Your task to perform on an android device: Search for flights from Sydney to Buenos aires Image 0: 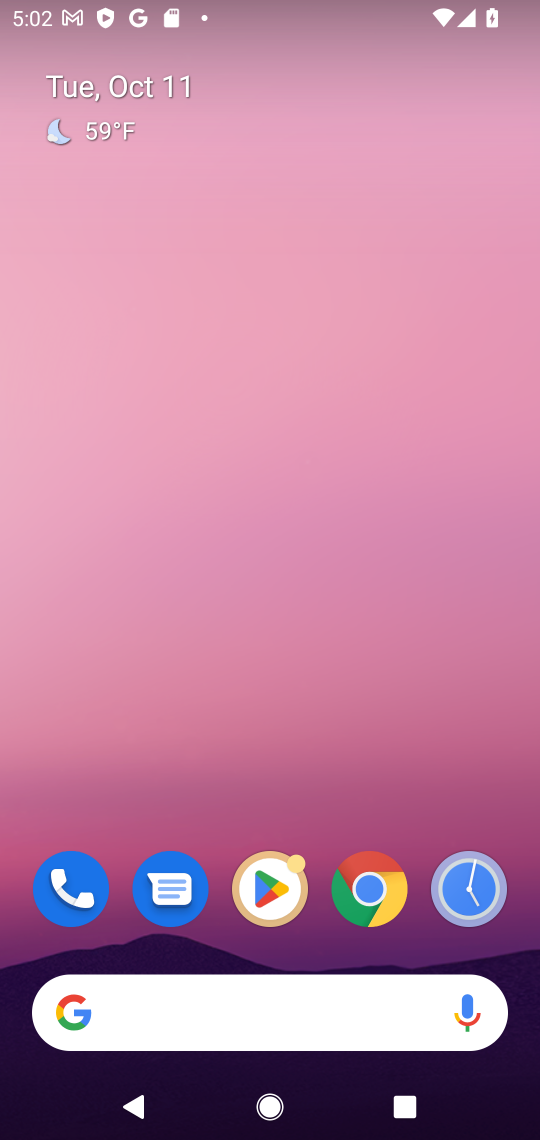
Step 0: drag from (296, 571) to (304, 408)
Your task to perform on an android device: Search for flights from Sydney to Buenos aires Image 1: 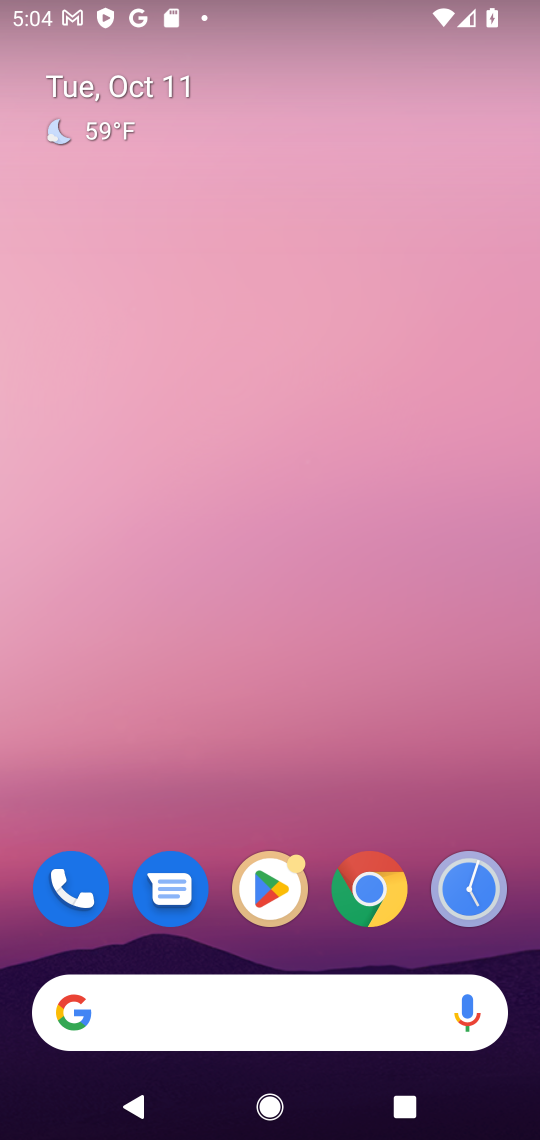
Step 1: click (276, 80)
Your task to perform on an android device: Search for flights from Sydney to Buenos aires Image 2: 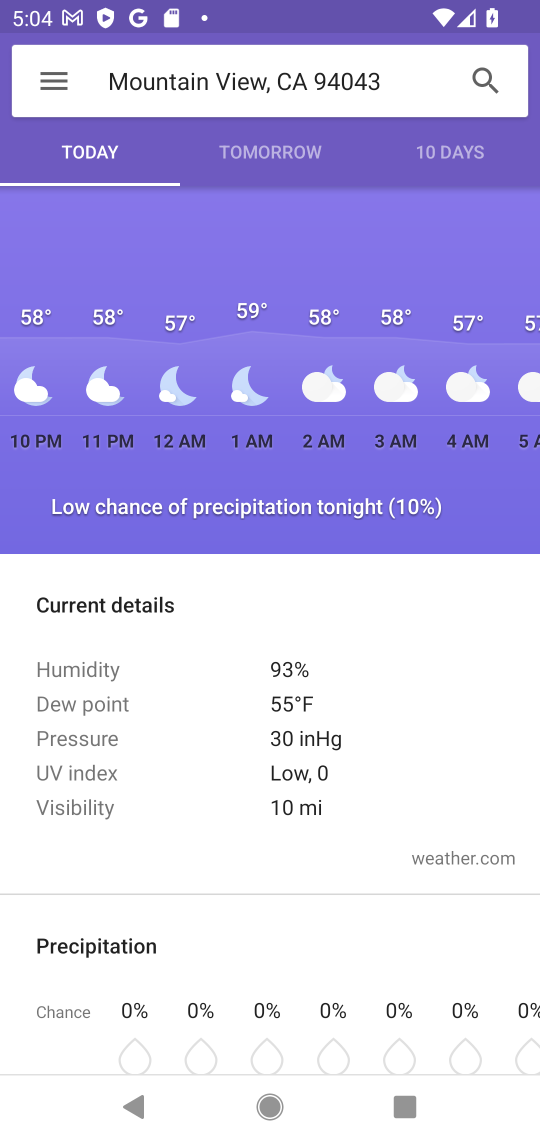
Step 2: press home button
Your task to perform on an android device: Search for flights from Sydney to Buenos aires Image 3: 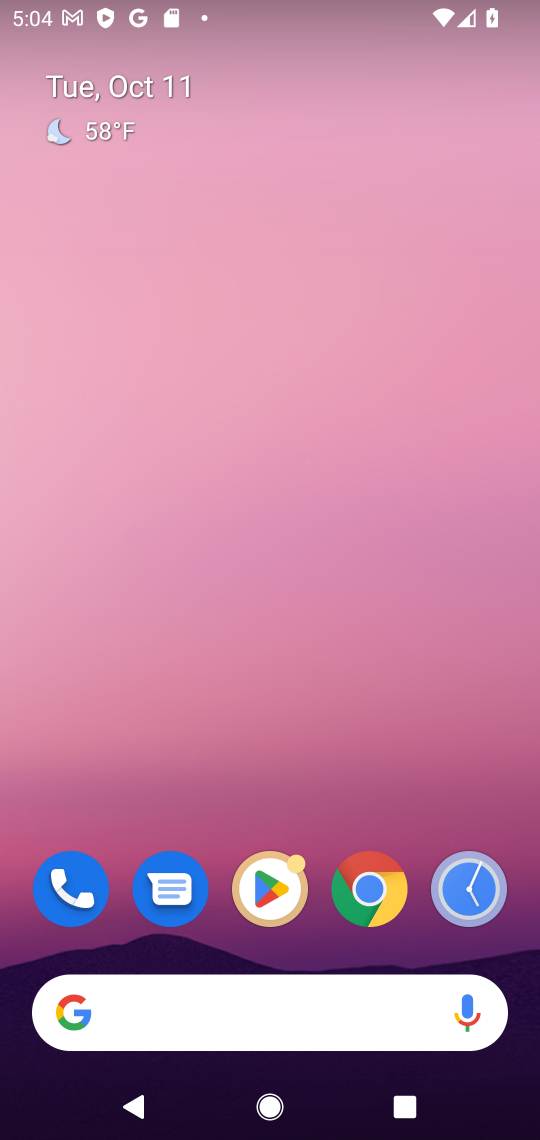
Step 3: drag from (253, 976) to (323, 151)
Your task to perform on an android device: Search for flights from Sydney to Buenos aires Image 4: 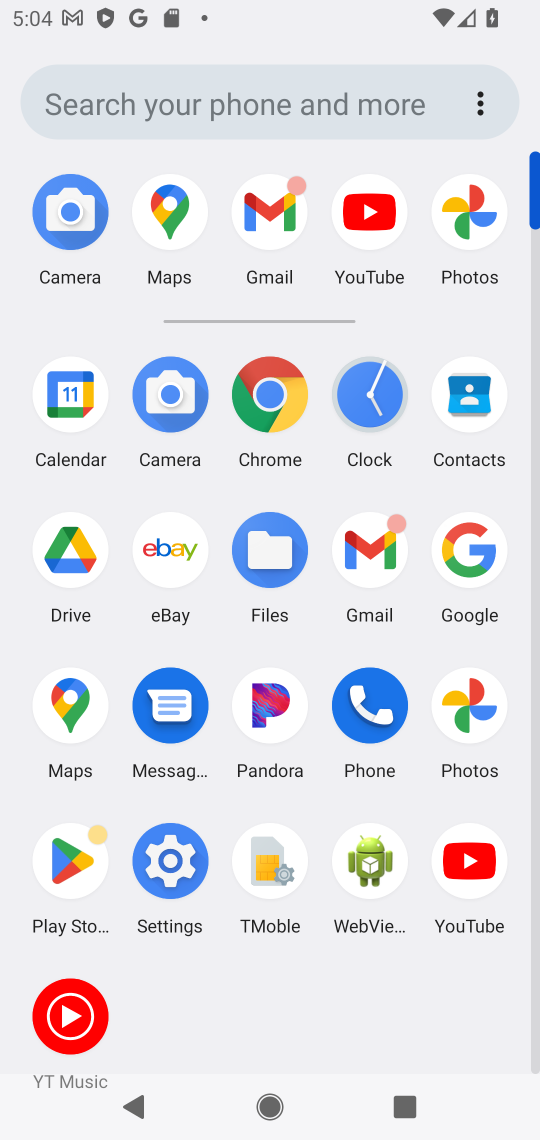
Step 4: click (465, 540)
Your task to perform on an android device: Search for flights from Sydney to Buenos aires Image 5: 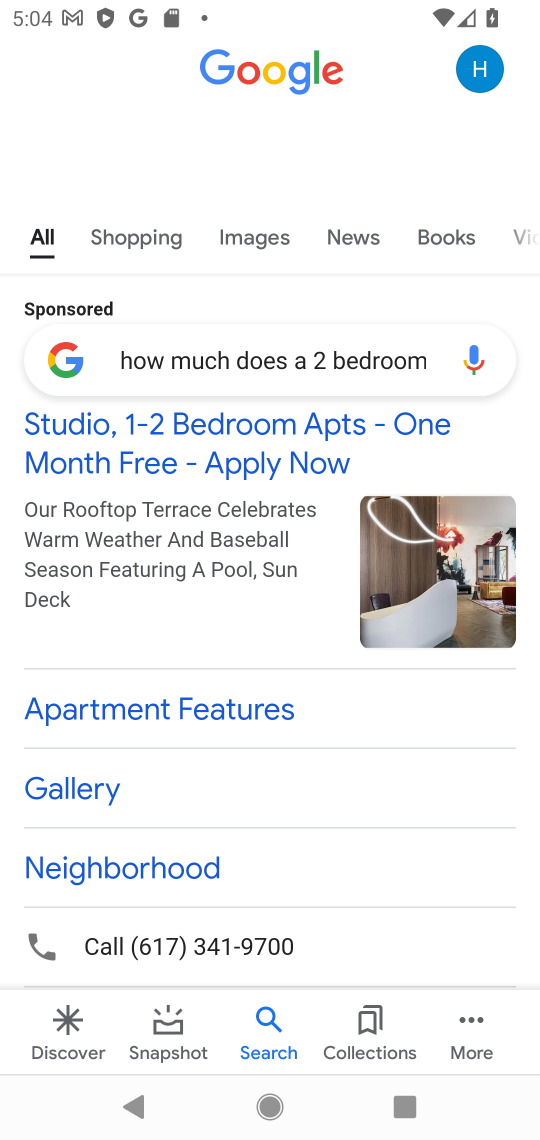
Step 5: click (249, 349)
Your task to perform on an android device: Search for flights from Sydney to Buenos aires Image 6: 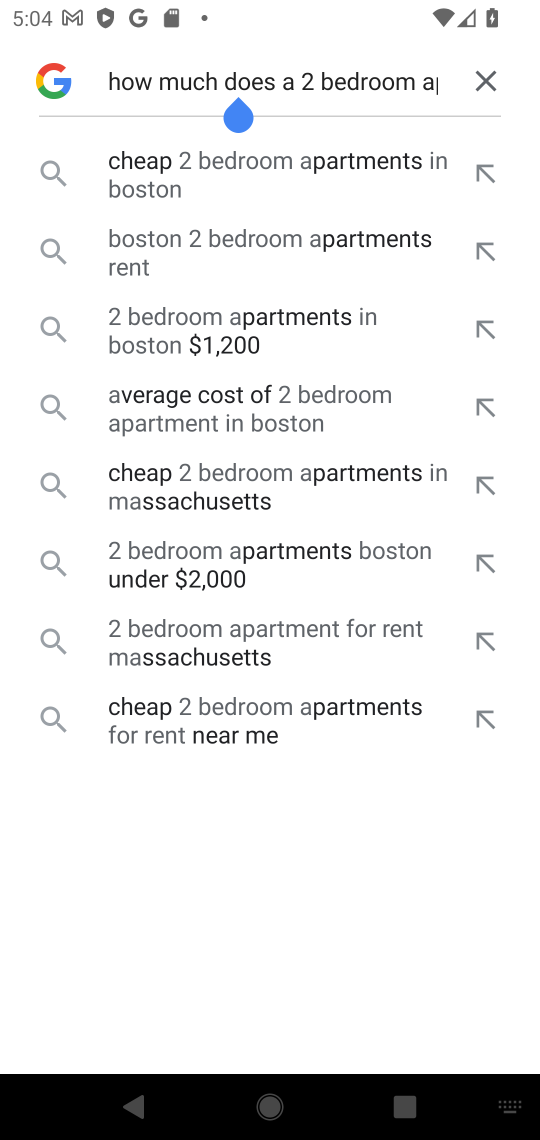
Step 6: click (483, 80)
Your task to perform on an android device: Search for flights from Sydney to Buenos aires Image 7: 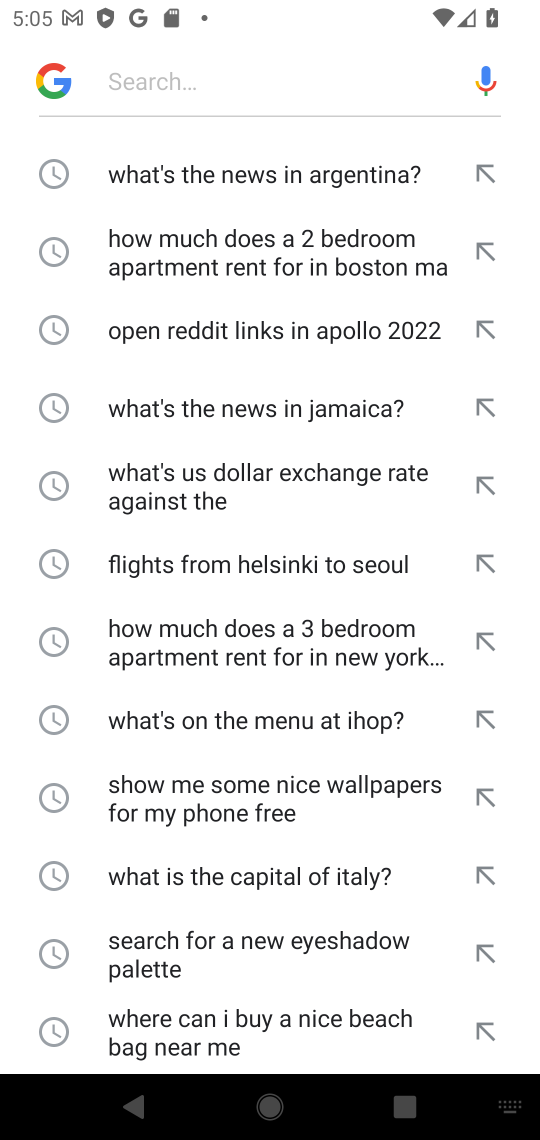
Step 7: click (267, 81)
Your task to perform on an android device: Search for flights from Sydney to Buenos aires Image 8: 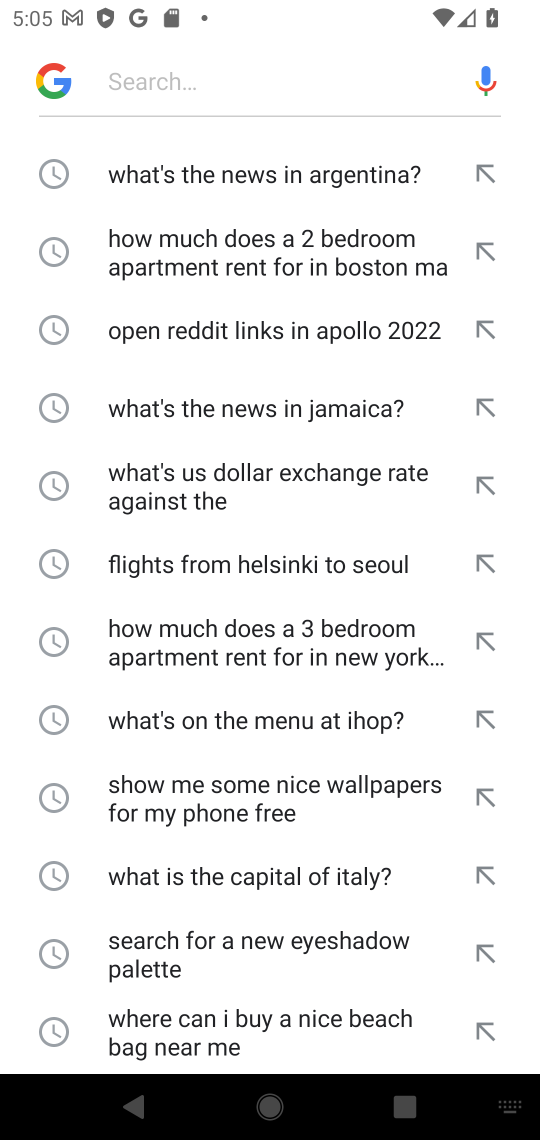
Step 8: type "Search for flights from Sydney to Buenos aires "
Your task to perform on an android device: Search for flights from Sydney to Buenos aires Image 9: 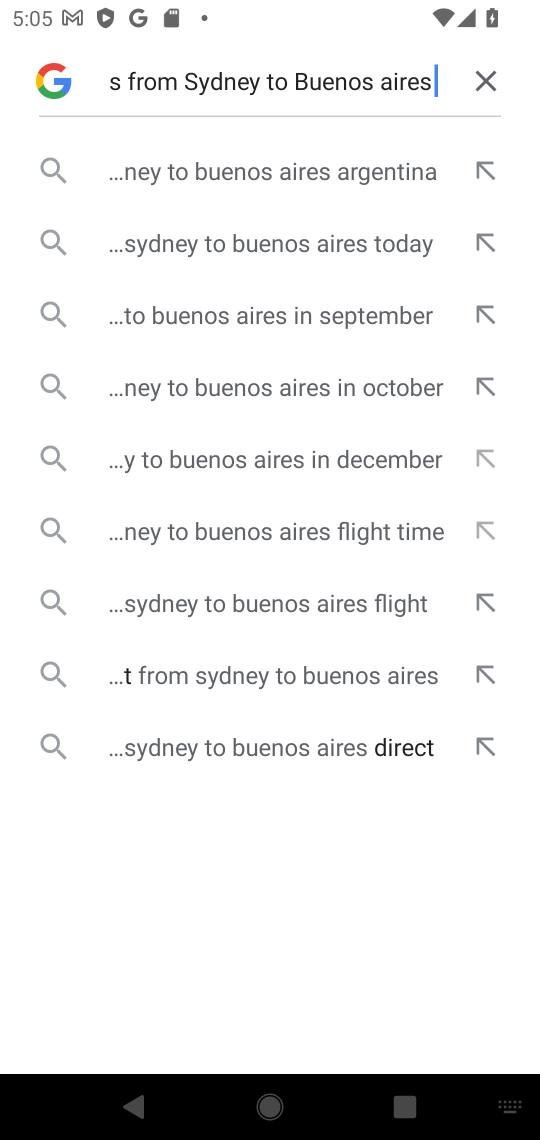
Step 9: click (315, 235)
Your task to perform on an android device: Search for flights from Sydney to Buenos aires Image 10: 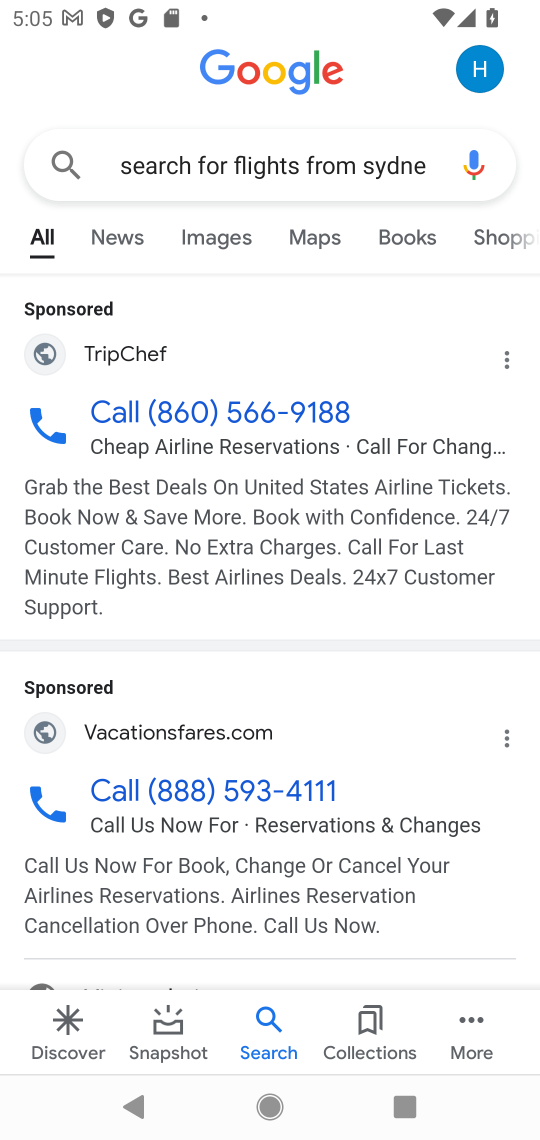
Step 10: drag from (266, 874) to (358, 244)
Your task to perform on an android device: Search for flights from Sydney to Buenos aires Image 11: 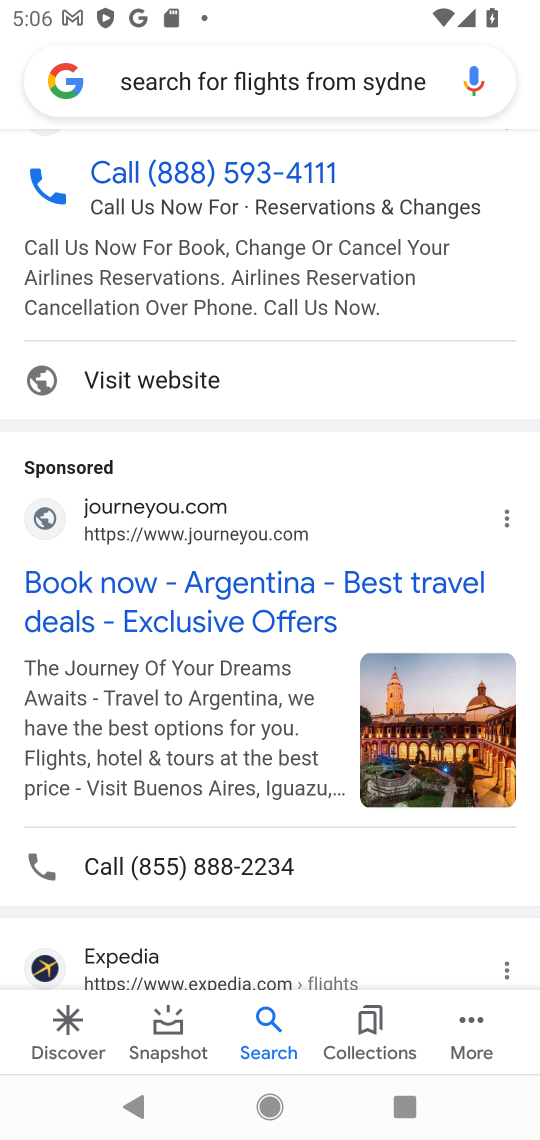
Step 11: drag from (317, 329) to (294, 922)
Your task to perform on an android device: Search for flights from Sydney to Buenos aires Image 12: 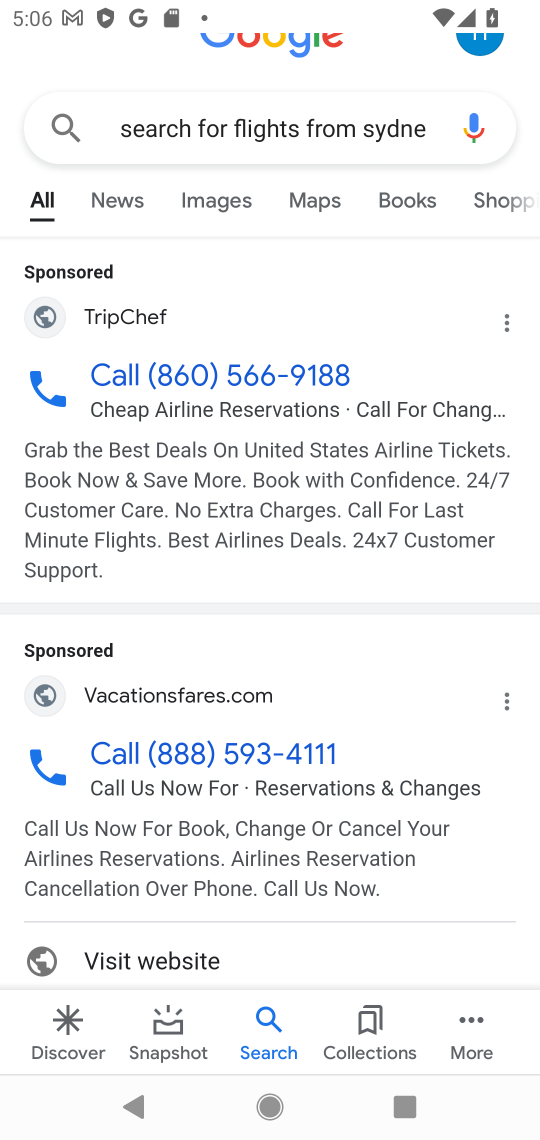
Step 12: drag from (222, 834) to (259, 200)
Your task to perform on an android device: Search for flights from Sydney to Buenos aires Image 13: 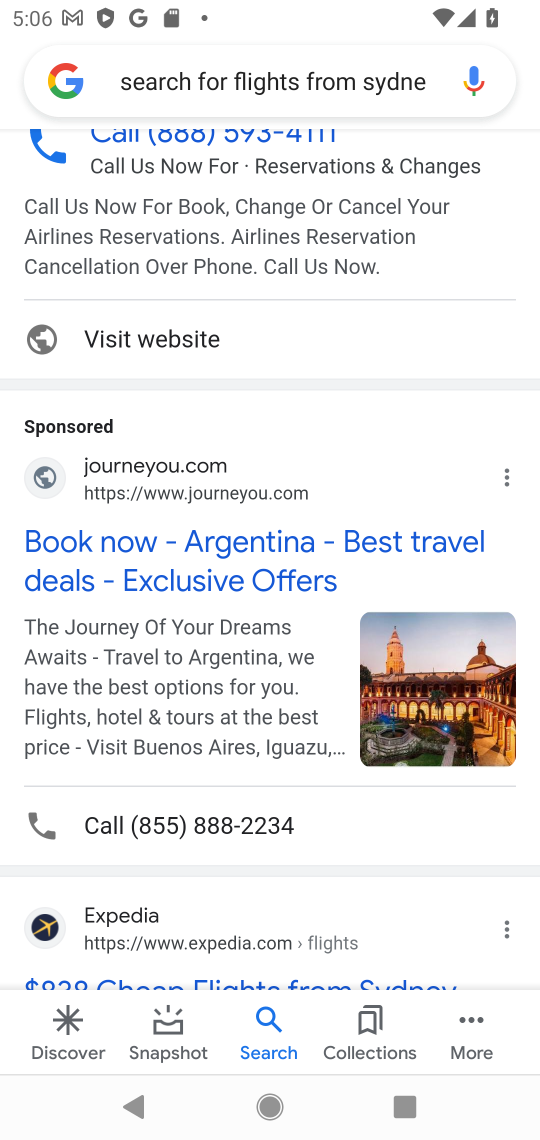
Step 13: drag from (205, 797) to (246, 363)
Your task to perform on an android device: Search for flights from Sydney to Buenos aires Image 14: 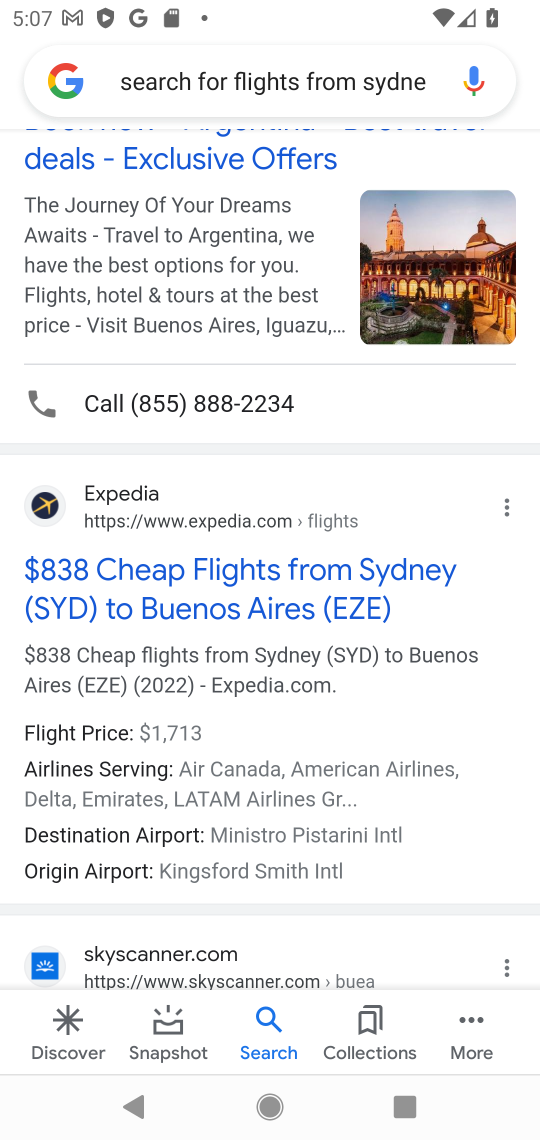
Step 14: click (359, 72)
Your task to perform on an android device: Search for flights from Sydney to Buenos aires Image 15: 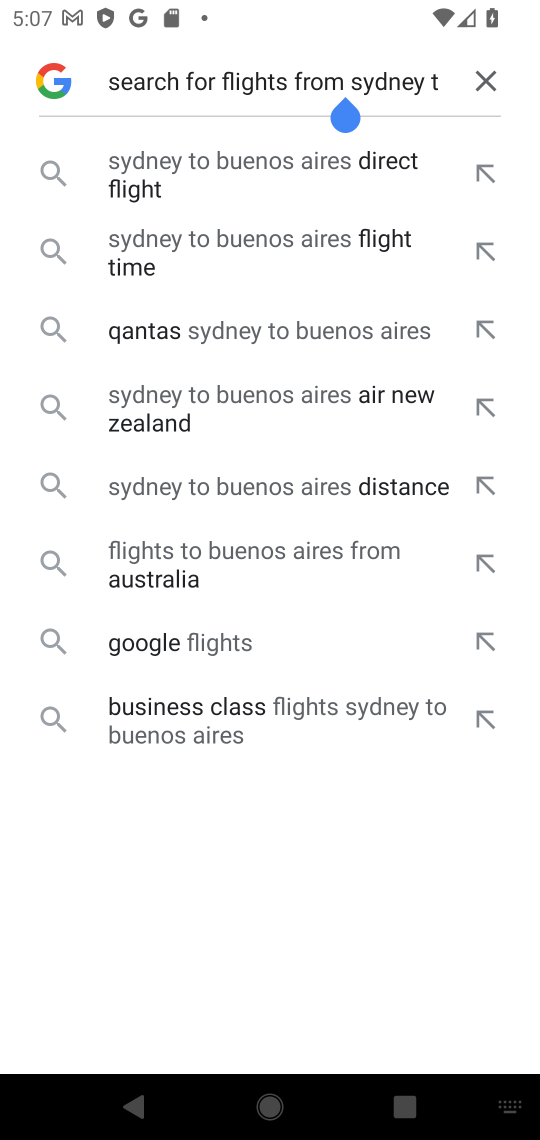
Step 15: click (195, 175)
Your task to perform on an android device: Search for flights from Sydney to Buenos aires Image 16: 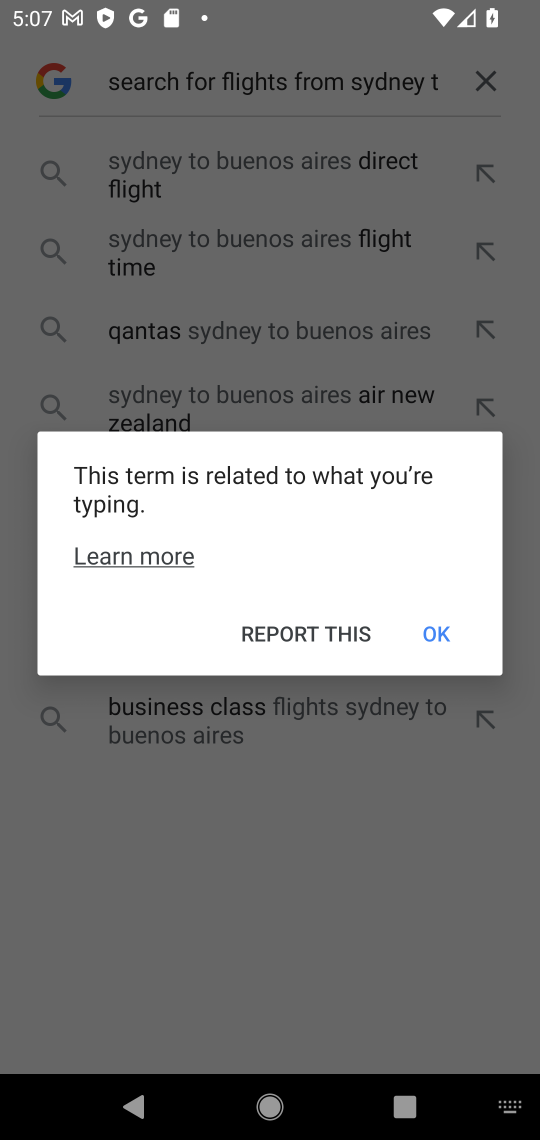
Step 16: click (453, 641)
Your task to perform on an android device: Search for flights from Sydney to Buenos aires Image 17: 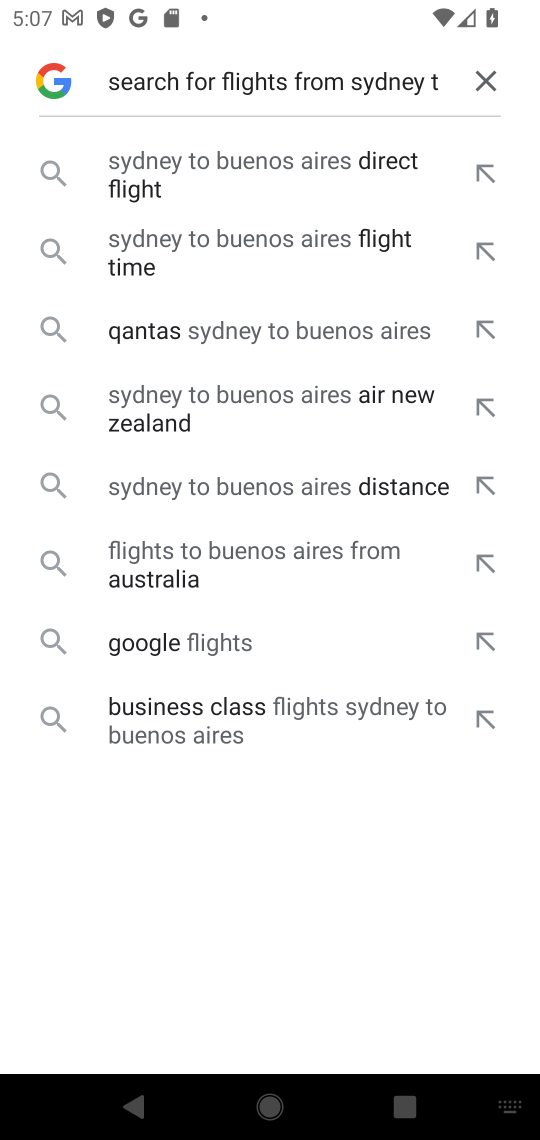
Step 17: click (129, 174)
Your task to perform on an android device: Search for flights from Sydney to Buenos aires Image 18: 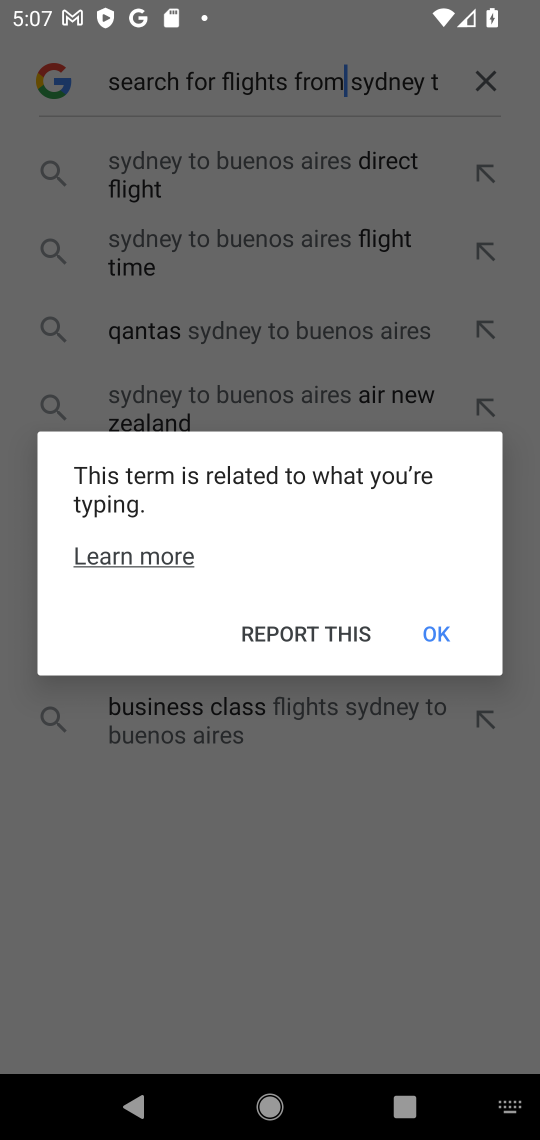
Step 18: click (460, 643)
Your task to perform on an android device: Search for flights from Sydney to Buenos aires Image 19: 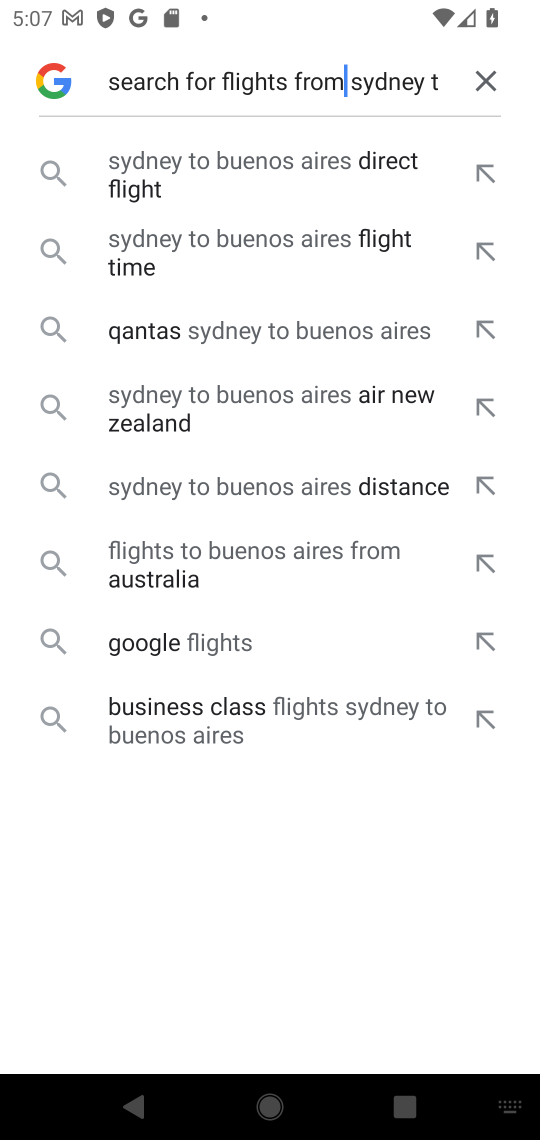
Step 19: press back button
Your task to perform on an android device: Search for flights from Sydney to Buenos aires Image 20: 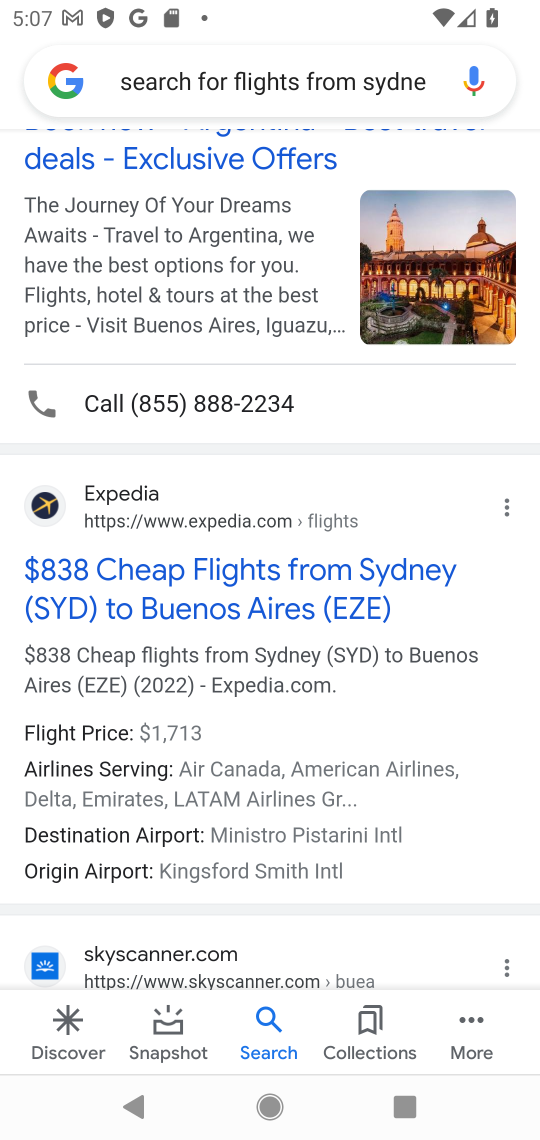
Step 20: click (484, 81)
Your task to perform on an android device: Search for flights from Sydney to Buenos aires Image 21: 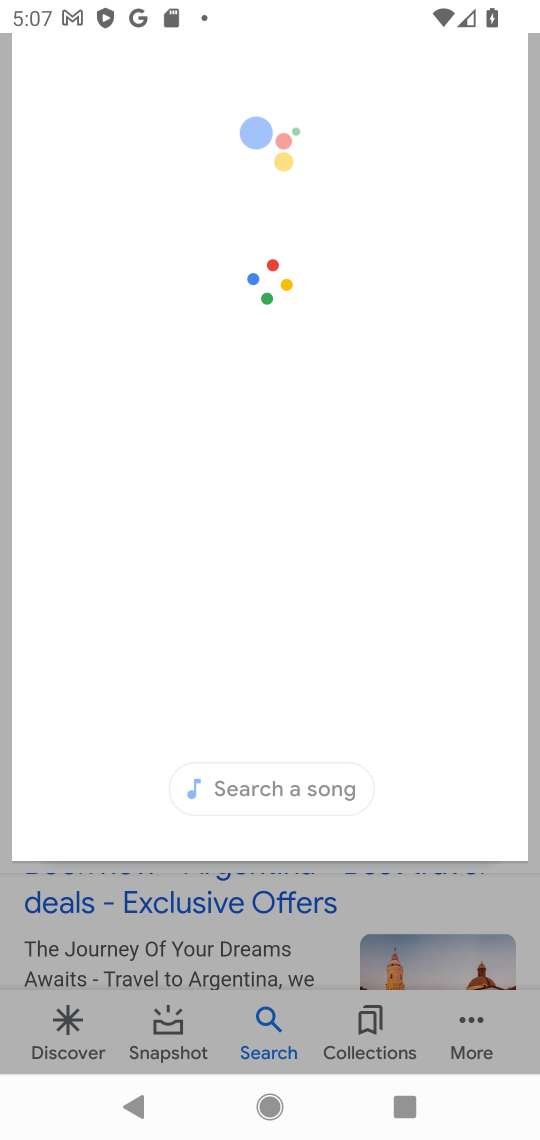
Step 21: click (328, 89)
Your task to perform on an android device: Search for flights from Sydney to Buenos aires Image 22: 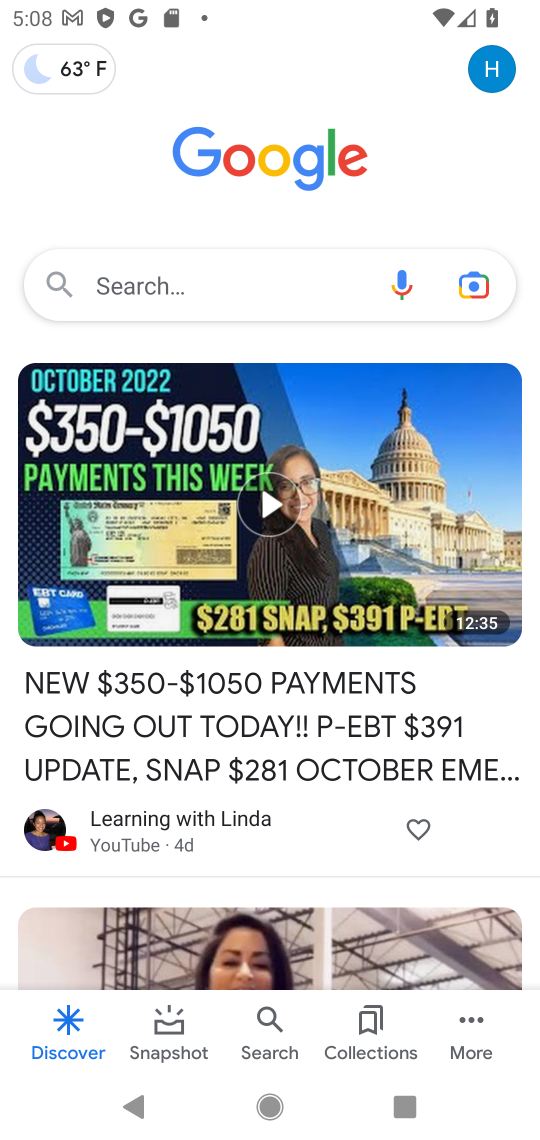
Step 22: click (359, 323)
Your task to perform on an android device: Search for flights from Sydney to Buenos aires Image 23: 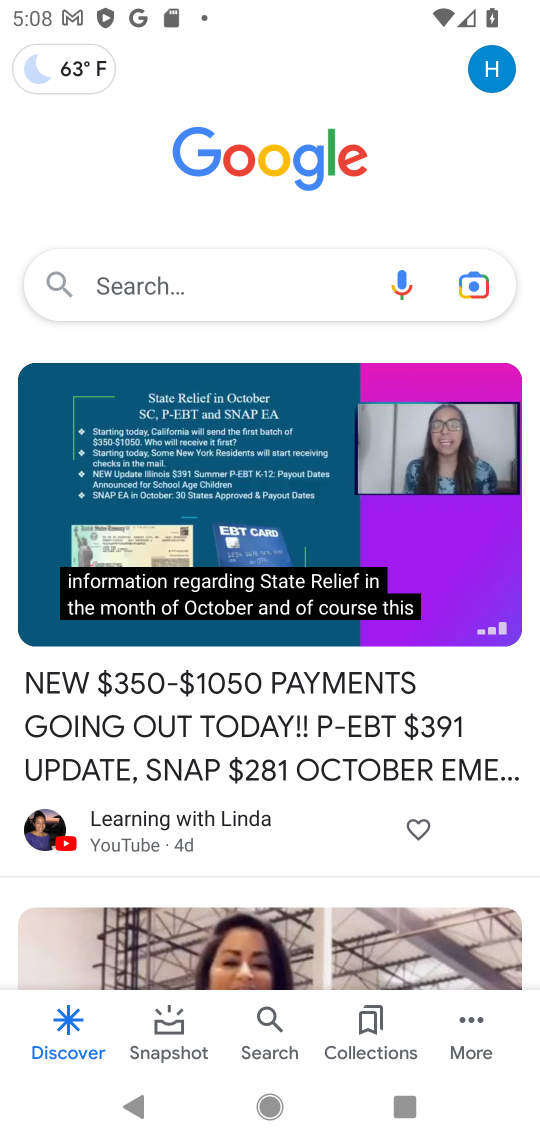
Step 23: click (251, 270)
Your task to perform on an android device: Search for flights from Sydney to Buenos aires Image 24: 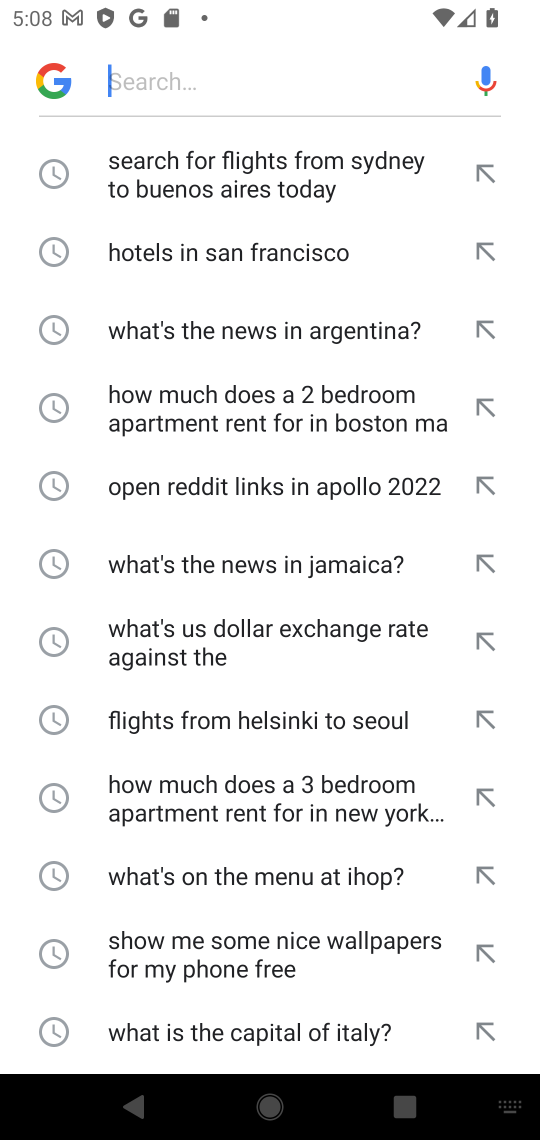
Step 24: type "Search for flights from Sydney to Buenos aires "
Your task to perform on an android device: Search for flights from Sydney to Buenos aires Image 25: 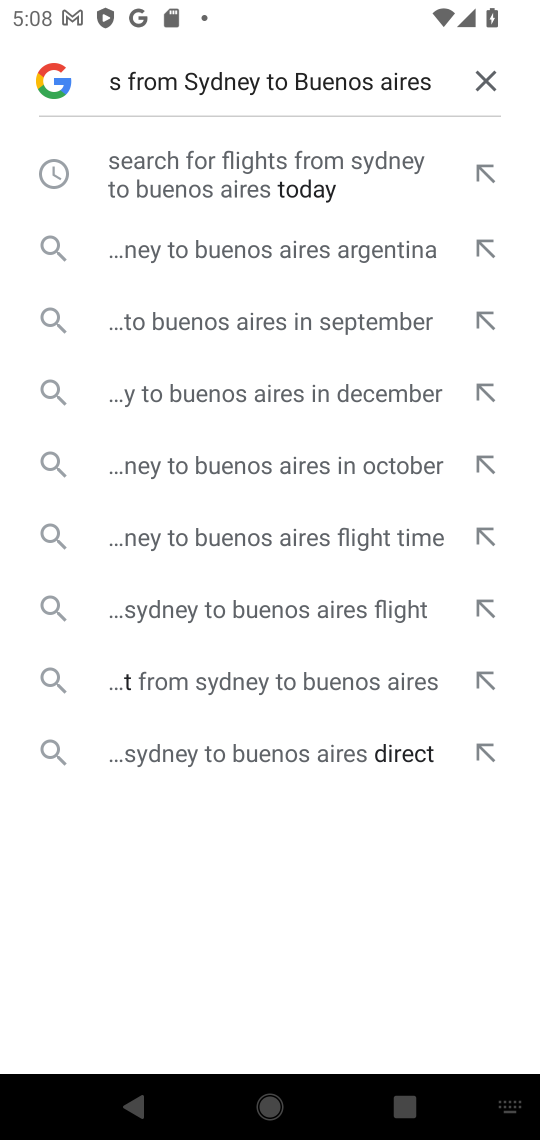
Step 25: click (237, 195)
Your task to perform on an android device: Search for flights from Sydney to Buenos aires Image 26: 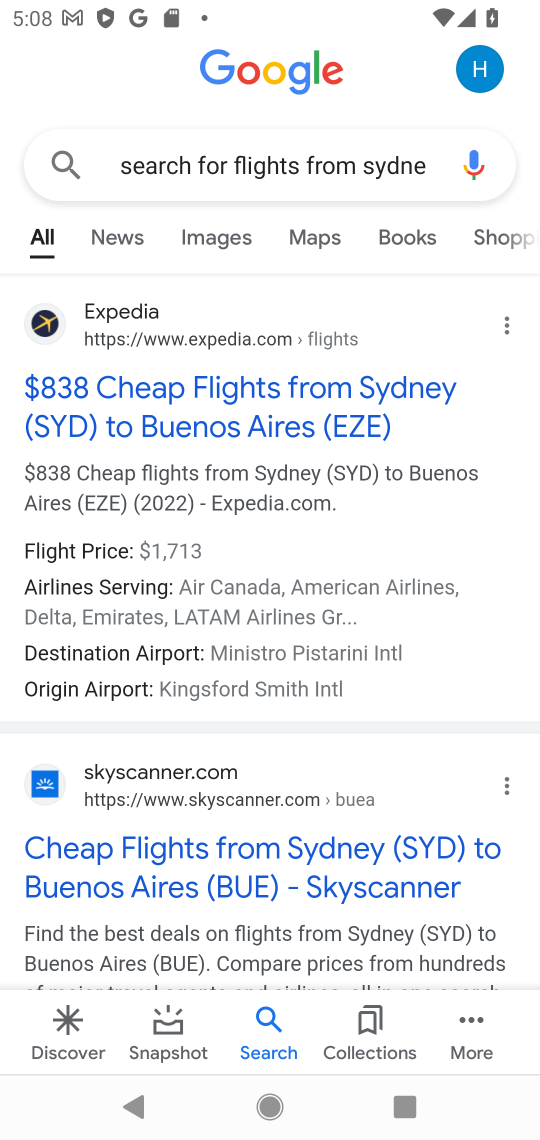
Step 26: drag from (237, 490) to (217, 377)
Your task to perform on an android device: Search for flights from Sydney to Buenos aires Image 27: 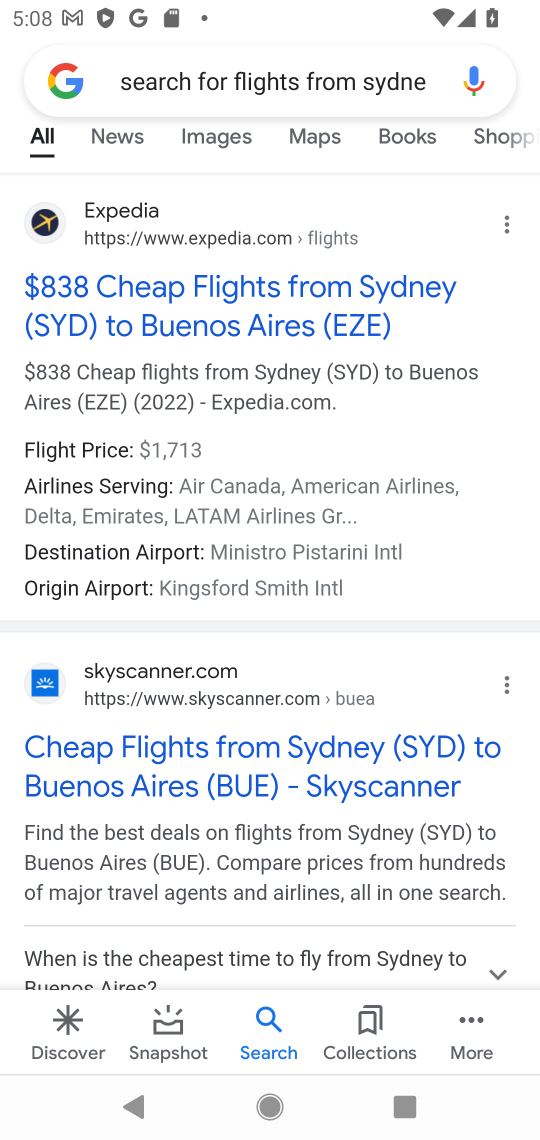
Step 27: click (230, 326)
Your task to perform on an android device: Search for flights from Sydney to Buenos aires Image 28: 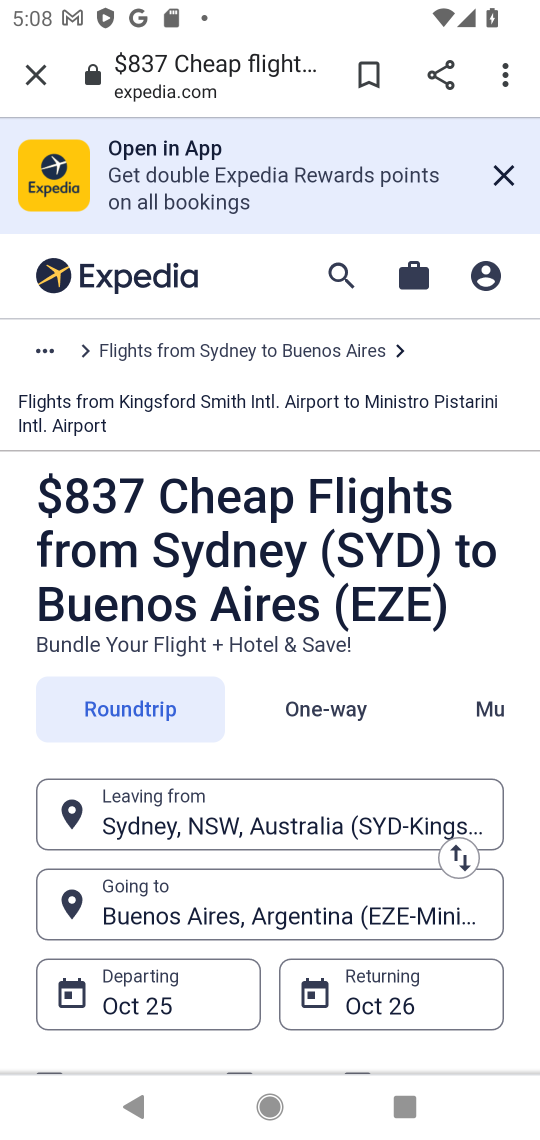
Step 28: task complete